Your task to perform on an android device: turn off notifications in google photos Image 0: 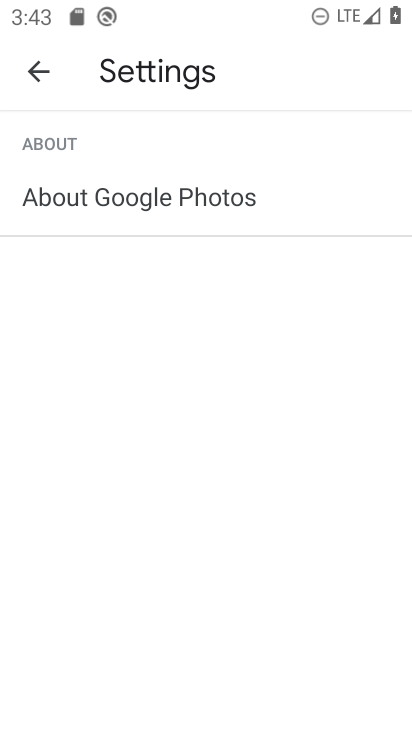
Step 0: press home button
Your task to perform on an android device: turn off notifications in google photos Image 1: 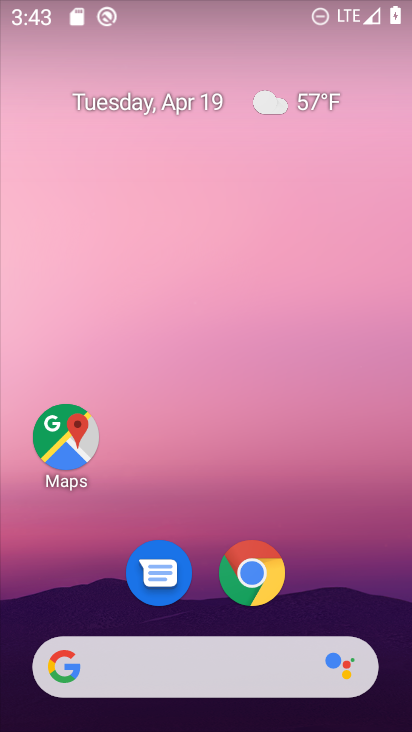
Step 1: drag from (329, 559) to (334, 42)
Your task to perform on an android device: turn off notifications in google photos Image 2: 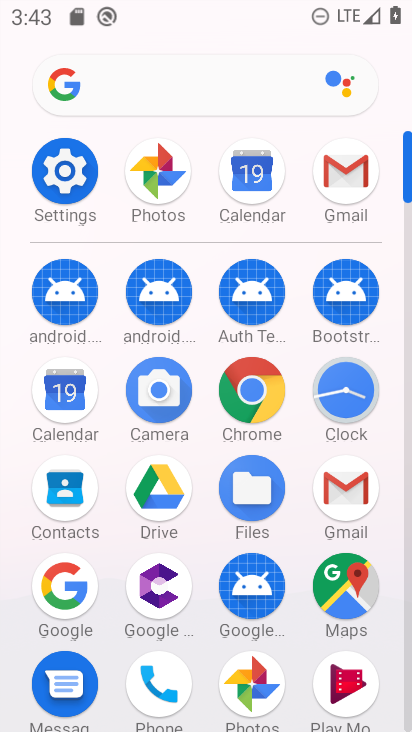
Step 2: click (160, 179)
Your task to perform on an android device: turn off notifications in google photos Image 3: 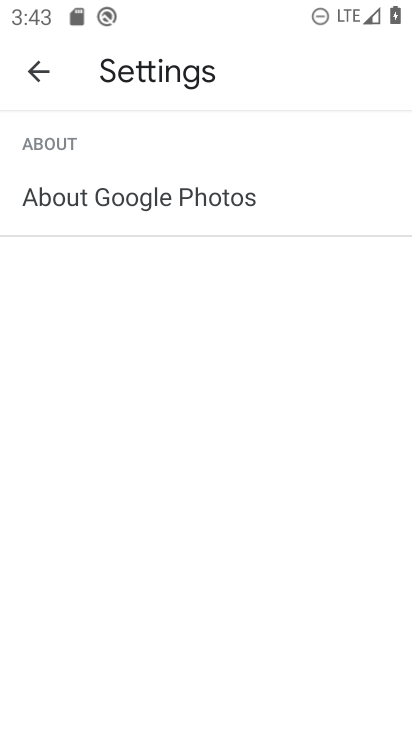
Step 3: click (35, 72)
Your task to perform on an android device: turn off notifications in google photos Image 4: 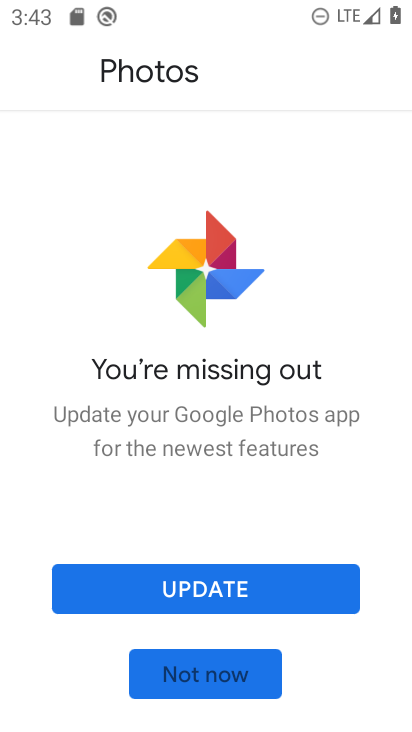
Step 4: click (215, 677)
Your task to perform on an android device: turn off notifications in google photos Image 5: 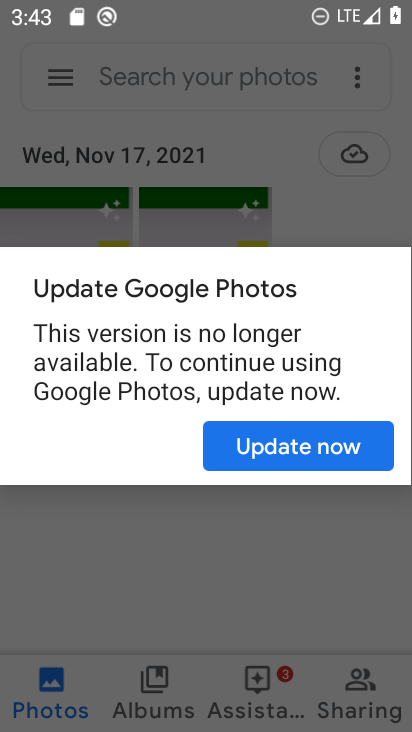
Step 5: click (283, 444)
Your task to perform on an android device: turn off notifications in google photos Image 6: 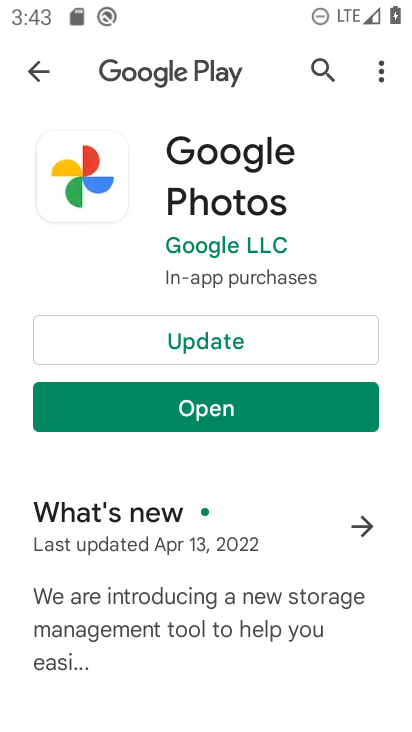
Step 6: click (190, 412)
Your task to perform on an android device: turn off notifications in google photos Image 7: 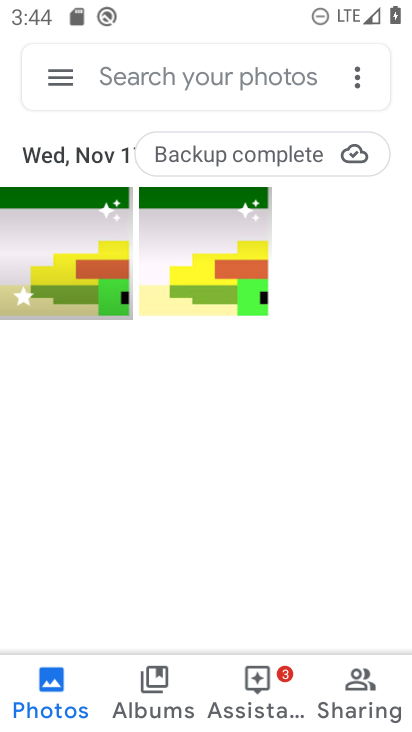
Step 7: click (50, 82)
Your task to perform on an android device: turn off notifications in google photos Image 8: 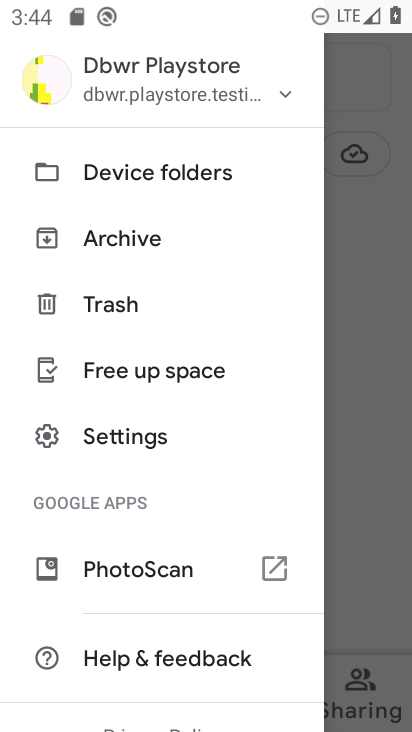
Step 8: click (102, 443)
Your task to perform on an android device: turn off notifications in google photos Image 9: 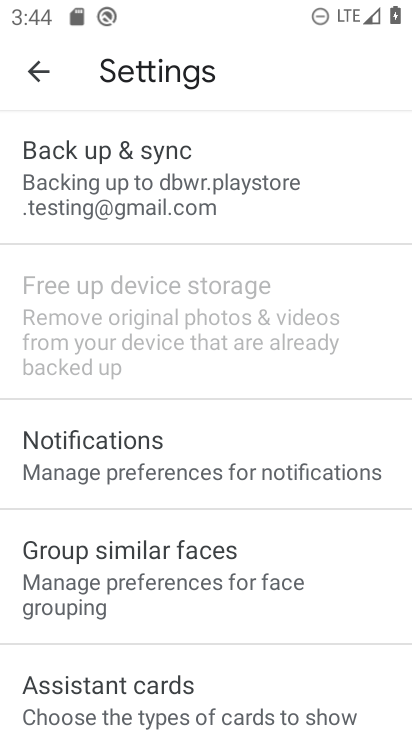
Step 9: click (134, 472)
Your task to perform on an android device: turn off notifications in google photos Image 10: 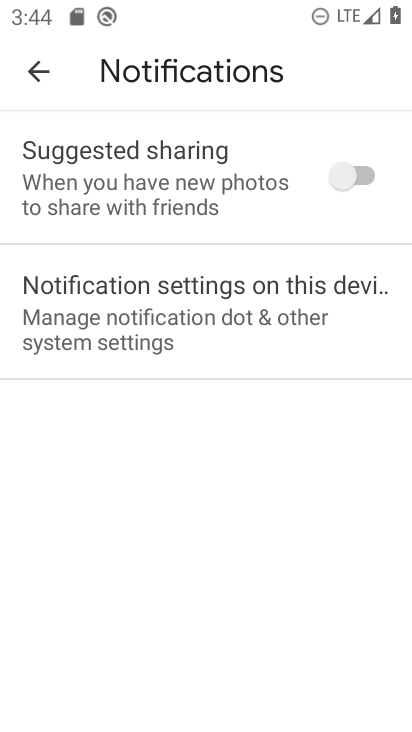
Step 10: click (156, 323)
Your task to perform on an android device: turn off notifications in google photos Image 11: 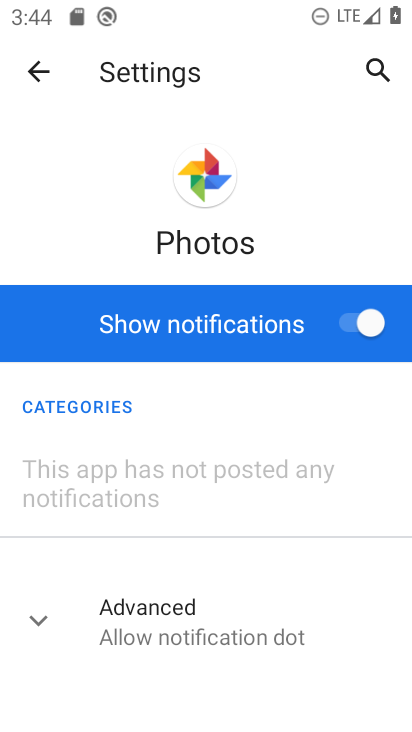
Step 11: click (371, 323)
Your task to perform on an android device: turn off notifications in google photos Image 12: 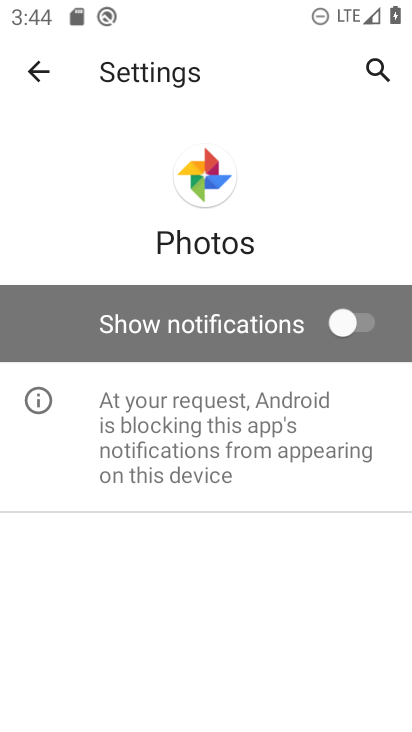
Step 12: task complete